Your task to perform on an android device: Search for seafood restaurants on Google Maps Image 0: 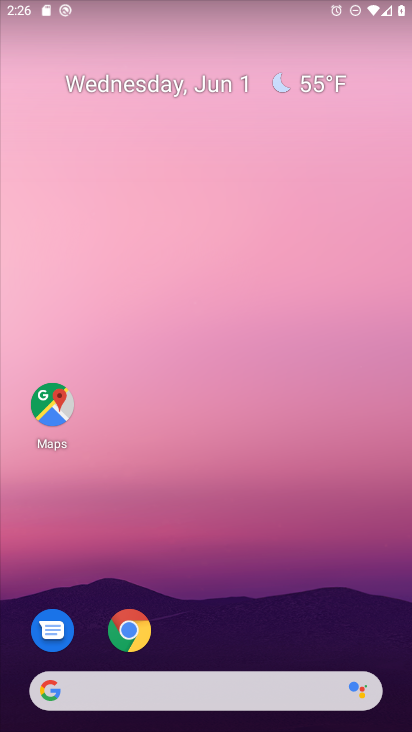
Step 0: drag from (243, 710) to (212, 121)
Your task to perform on an android device: Search for seafood restaurants on Google Maps Image 1: 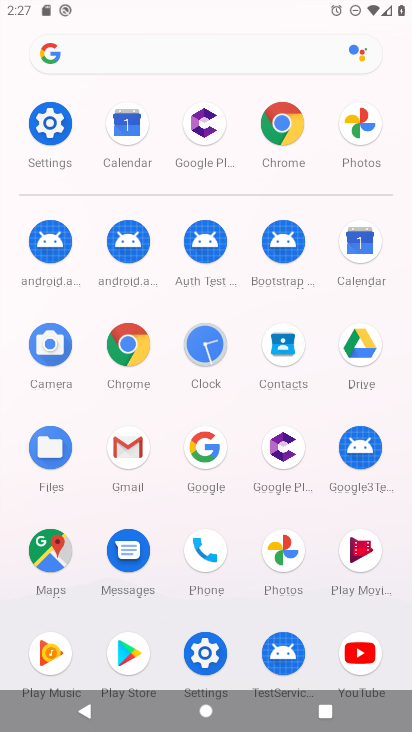
Step 1: click (24, 548)
Your task to perform on an android device: Search for seafood restaurants on Google Maps Image 2: 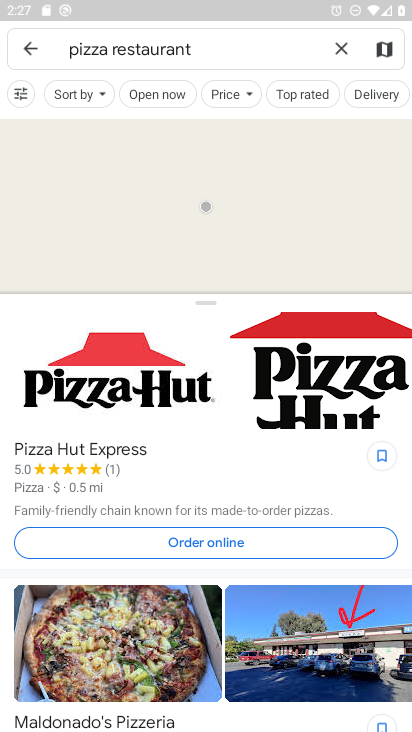
Step 2: click (333, 52)
Your task to perform on an android device: Search for seafood restaurants on Google Maps Image 3: 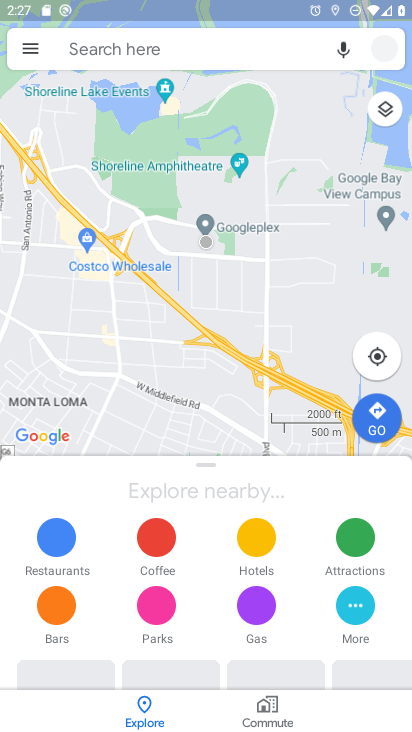
Step 3: click (189, 39)
Your task to perform on an android device: Search for seafood restaurants on Google Maps Image 4: 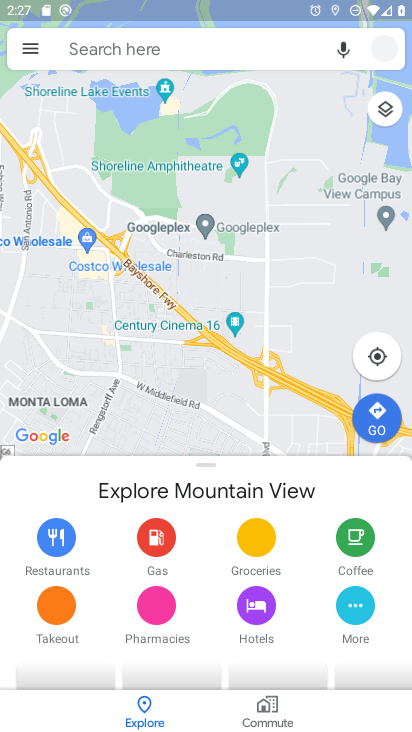
Step 4: click (183, 50)
Your task to perform on an android device: Search for seafood restaurants on Google Maps Image 5: 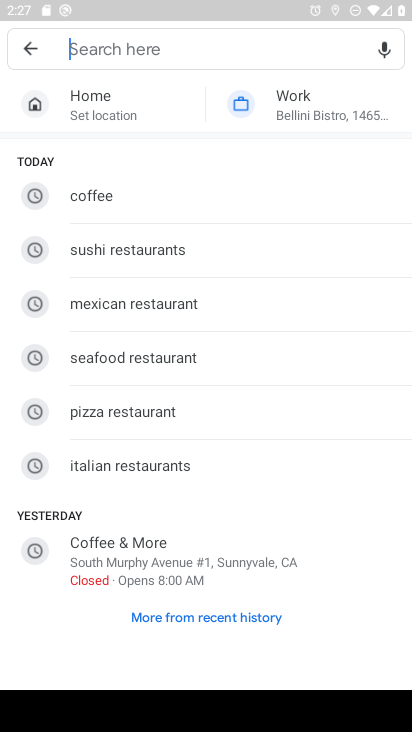
Step 5: click (115, 357)
Your task to perform on an android device: Search for seafood restaurants on Google Maps Image 6: 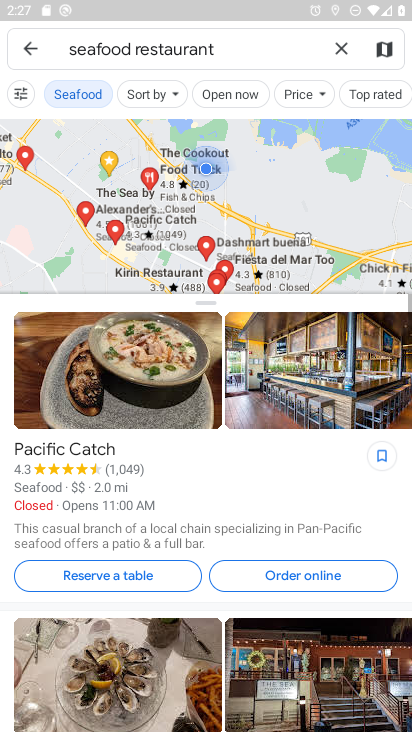
Step 6: task complete